Your task to perform on an android device: change notification settings in the gmail app Image 0: 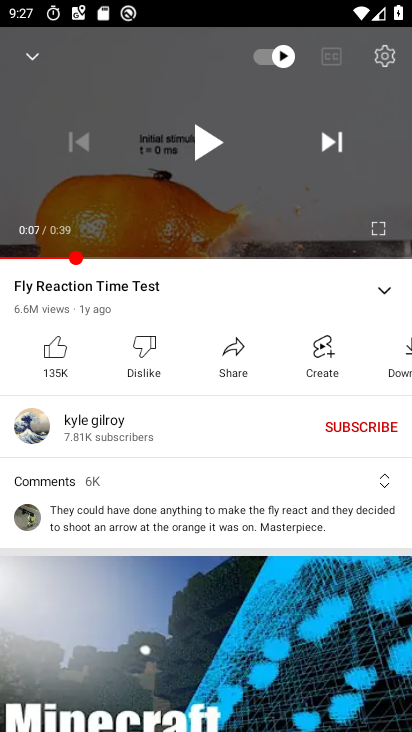
Step 0: press back button
Your task to perform on an android device: change notification settings in the gmail app Image 1: 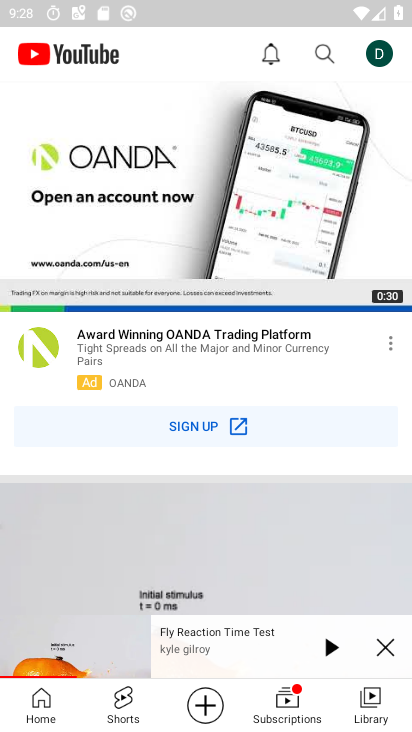
Step 1: press home button
Your task to perform on an android device: change notification settings in the gmail app Image 2: 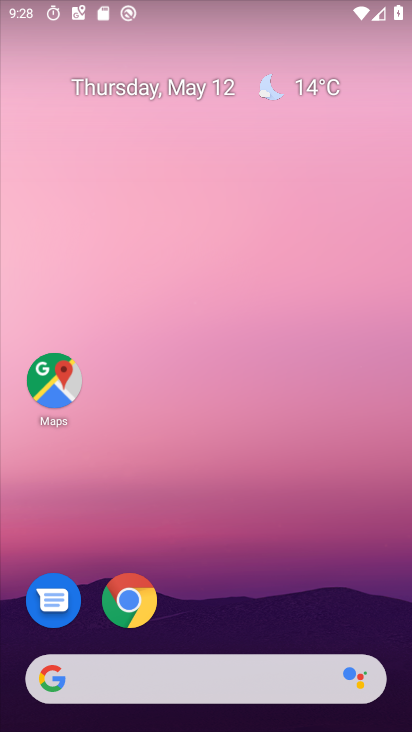
Step 2: drag from (366, 620) to (206, 59)
Your task to perform on an android device: change notification settings in the gmail app Image 3: 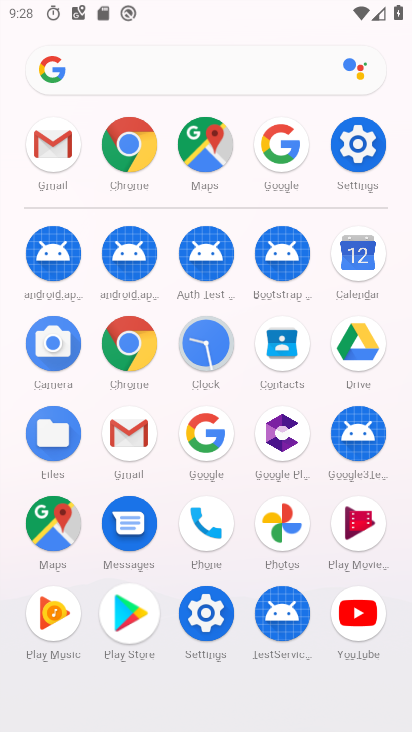
Step 3: drag from (264, 568) to (120, 96)
Your task to perform on an android device: change notification settings in the gmail app Image 4: 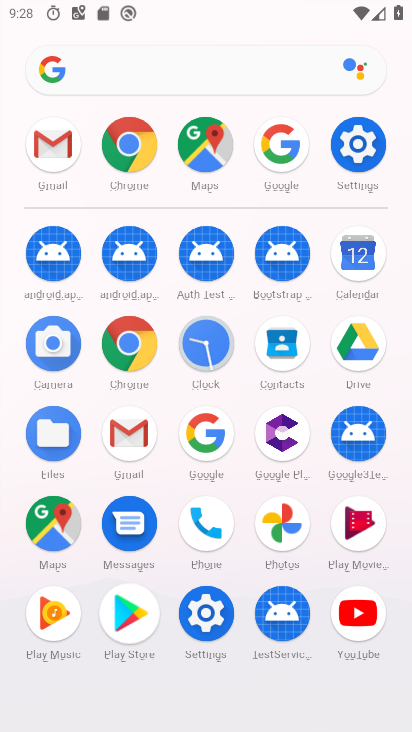
Step 4: click (134, 435)
Your task to perform on an android device: change notification settings in the gmail app Image 5: 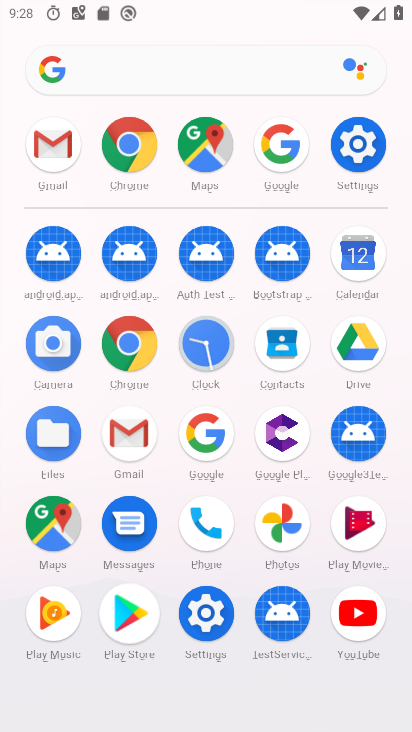
Step 5: click (134, 434)
Your task to perform on an android device: change notification settings in the gmail app Image 6: 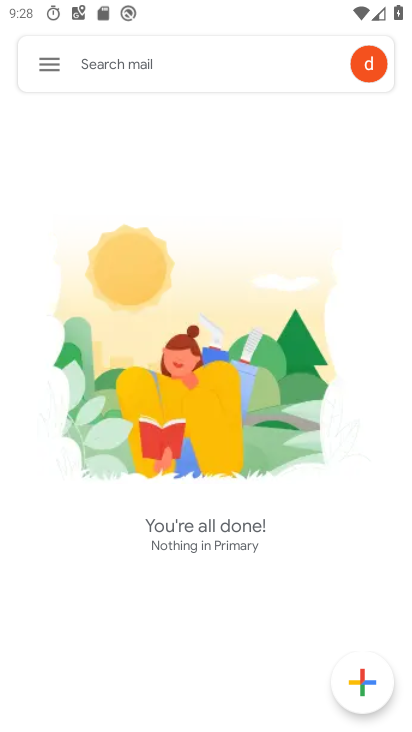
Step 6: click (55, 61)
Your task to perform on an android device: change notification settings in the gmail app Image 7: 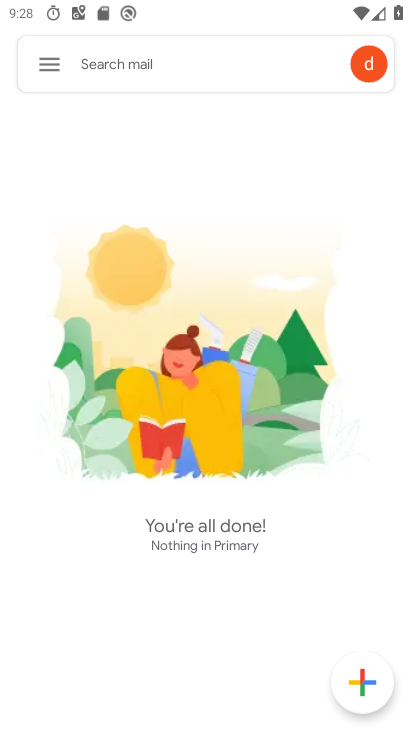
Step 7: click (8, 11)
Your task to perform on an android device: change notification settings in the gmail app Image 8: 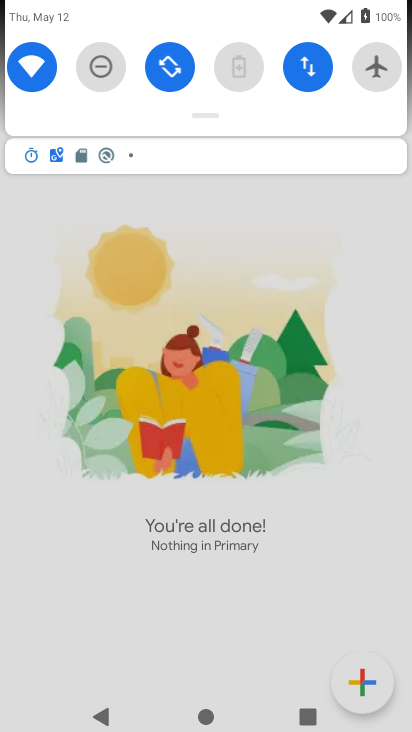
Step 8: click (54, 67)
Your task to perform on an android device: change notification settings in the gmail app Image 9: 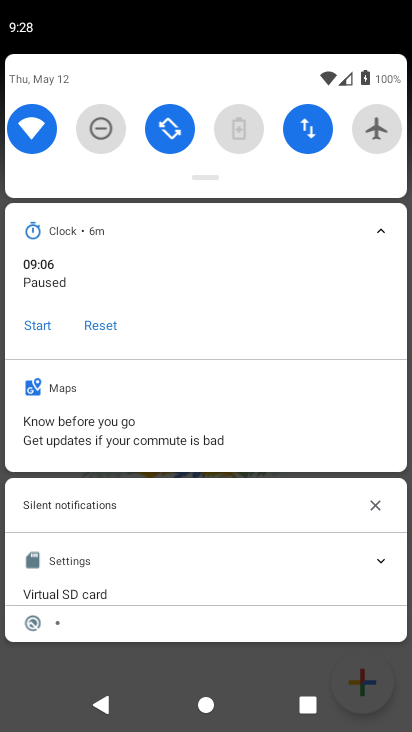
Step 9: click (59, 64)
Your task to perform on an android device: change notification settings in the gmail app Image 10: 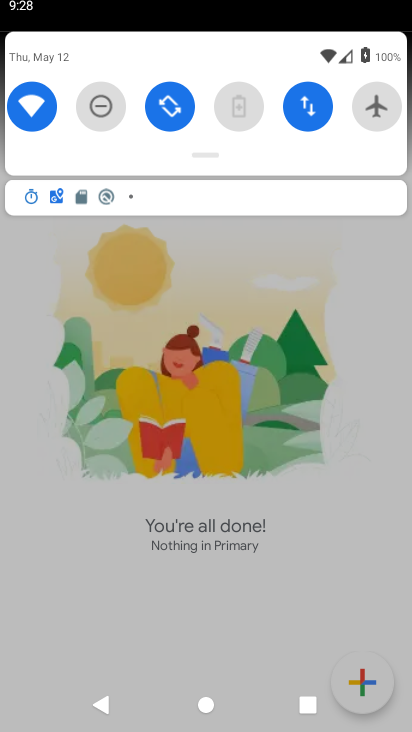
Step 10: click (60, 70)
Your task to perform on an android device: change notification settings in the gmail app Image 11: 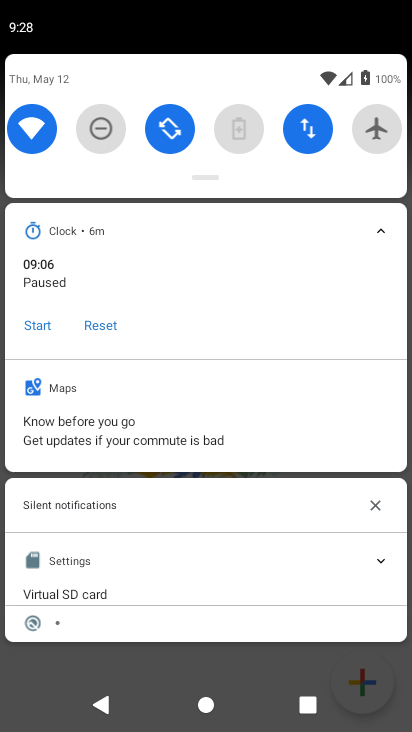
Step 11: click (370, 500)
Your task to perform on an android device: change notification settings in the gmail app Image 12: 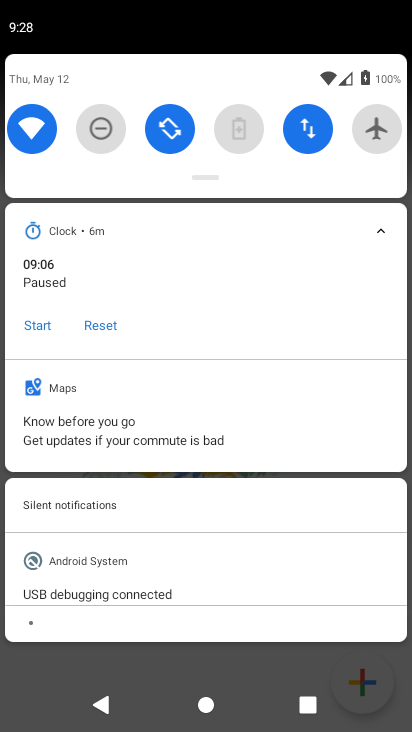
Step 12: click (312, 654)
Your task to perform on an android device: change notification settings in the gmail app Image 13: 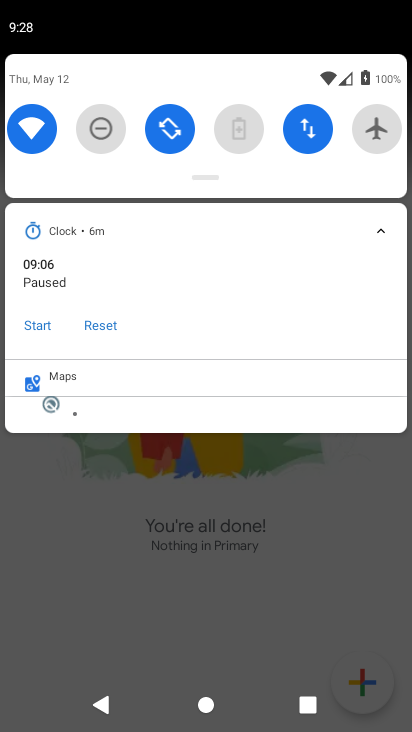
Step 13: click (225, 662)
Your task to perform on an android device: change notification settings in the gmail app Image 14: 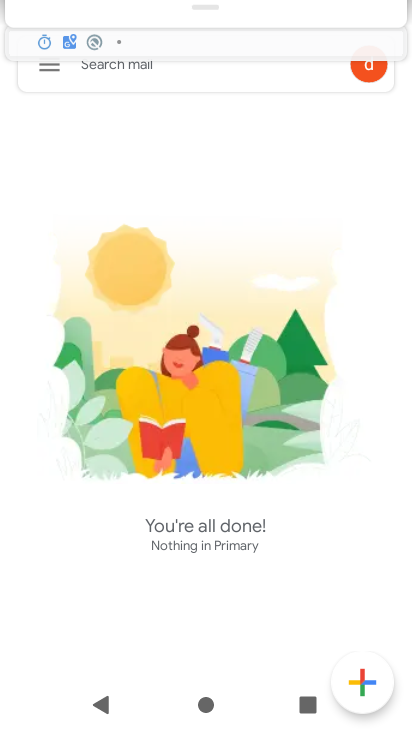
Step 14: drag from (228, 667) to (277, 667)
Your task to perform on an android device: change notification settings in the gmail app Image 15: 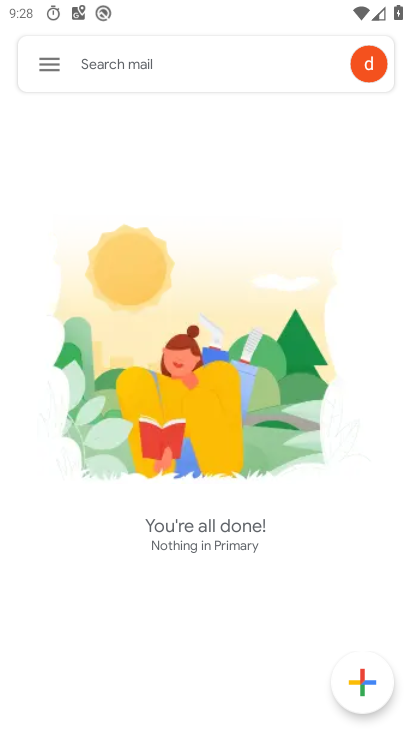
Step 15: click (48, 69)
Your task to perform on an android device: change notification settings in the gmail app Image 16: 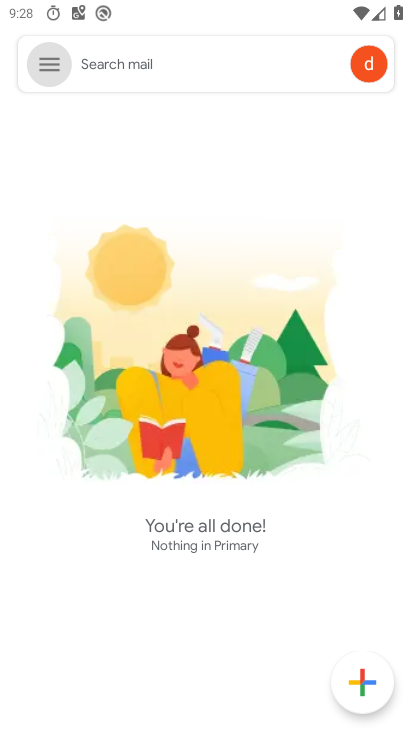
Step 16: click (49, 68)
Your task to perform on an android device: change notification settings in the gmail app Image 17: 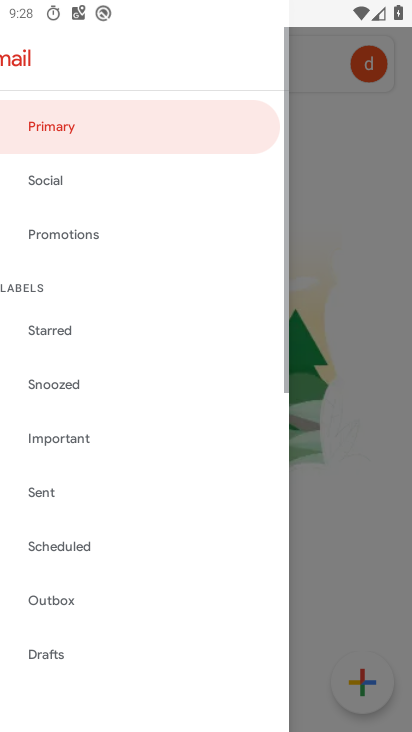
Step 17: click (49, 68)
Your task to perform on an android device: change notification settings in the gmail app Image 18: 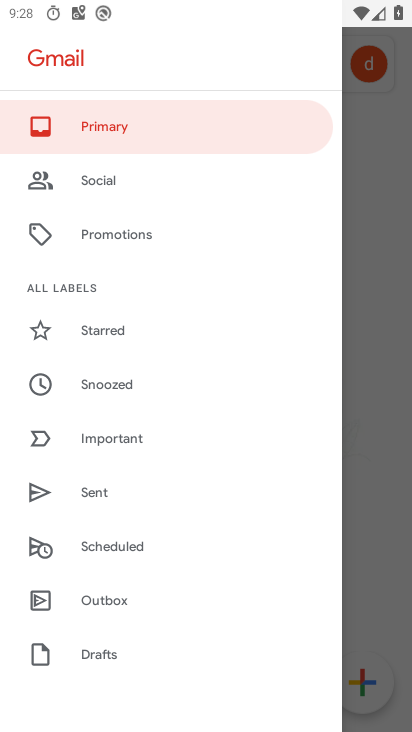
Step 18: drag from (208, 512) to (111, 19)
Your task to perform on an android device: change notification settings in the gmail app Image 19: 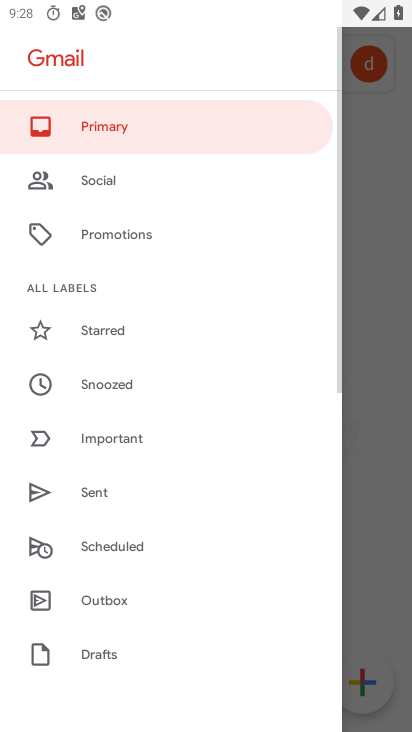
Step 19: drag from (155, 412) to (122, 14)
Your task to perform on an android device: change notification settings in the gmail app Image 20: 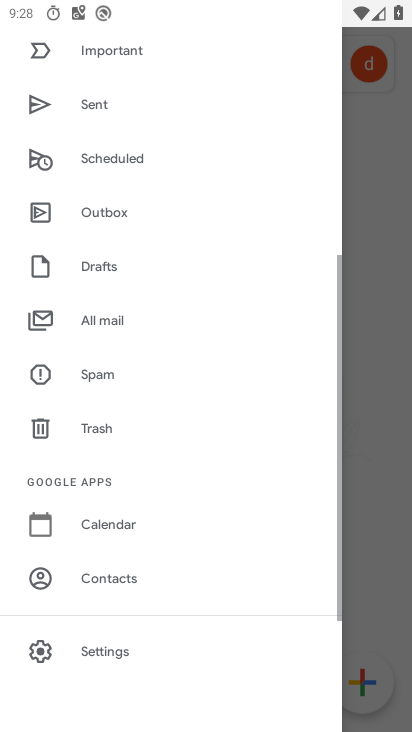
Step 20: drag from (152, 469) to (157, 28)
Your task to perform on an android device: change notification settings in the gmail app Image 21: 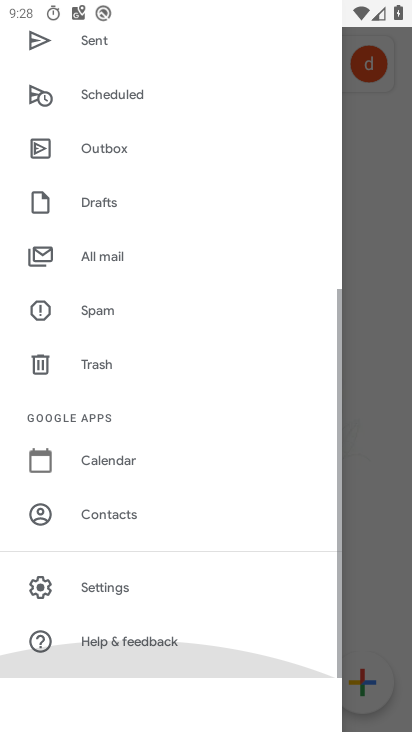
Step 21: drag from (231, 504) to (230, 76)
Your task to perform on an android device: change notification settings in the gmail app Image 22: 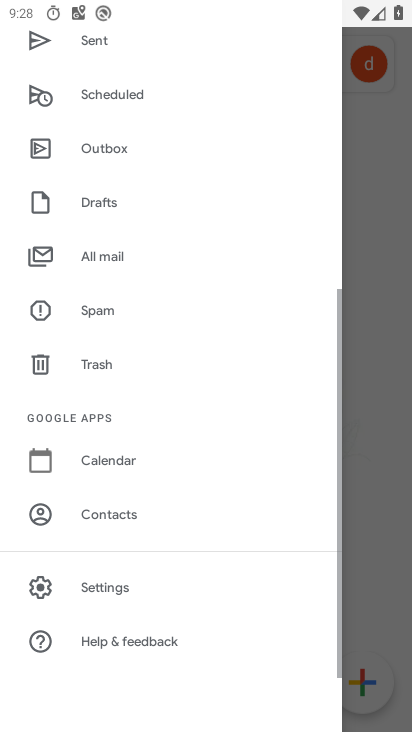
Step 22: click (106, 586)
Your task to perform on an android device: change notification settings in the gmail app Image 23: 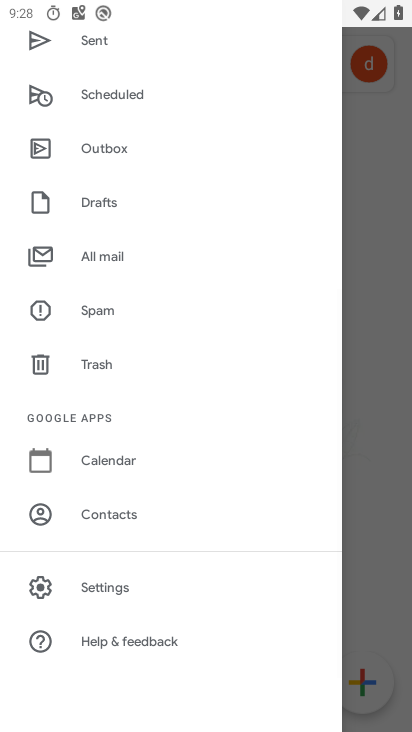
Step 23: click (106, 586)
Your task to perform on an android device: change notification settings in the gmail app Image 24: 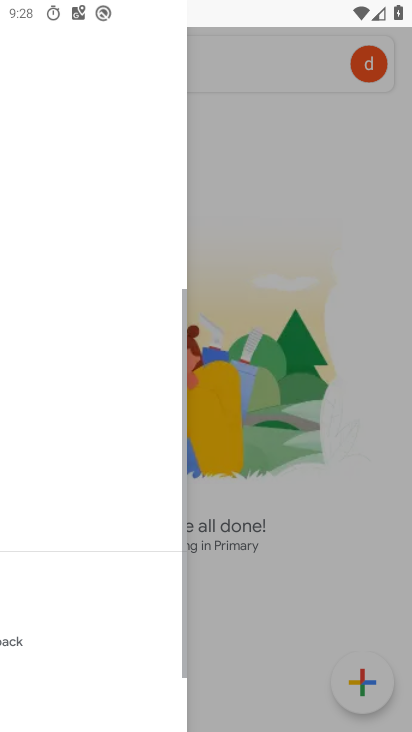
Step 24: click (105, 586)
Your task to perform on an android device: change notification settings in the gmail app Image 25: 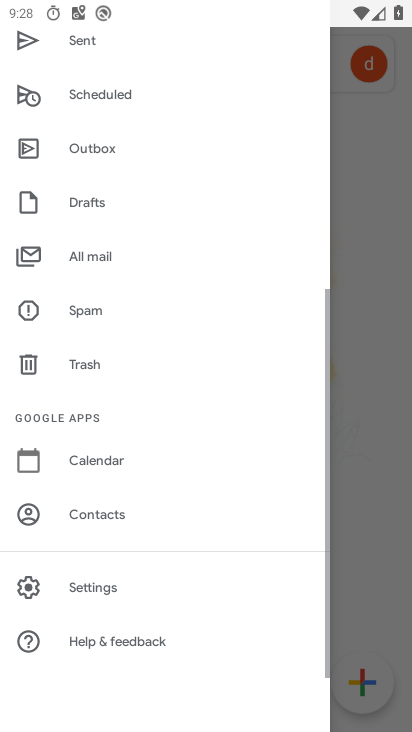
Step 25: click (101, 586)
Your task to perform on an android device: change notification settings in the gmail app Image 26: 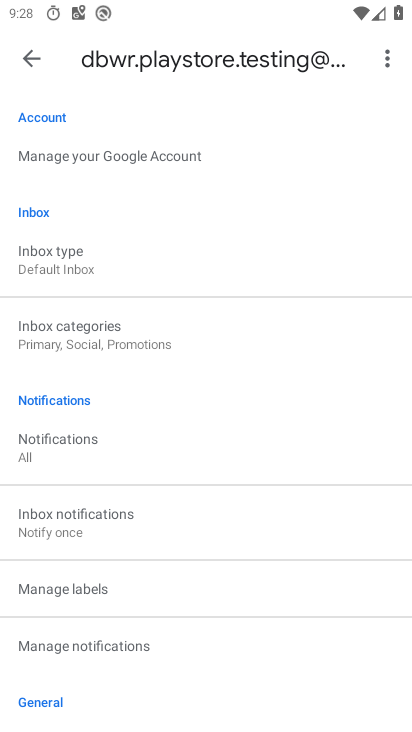
Step 26: click (39, 429)
Your task to perform on an android device: change notification settings in the gmail app Image 27: 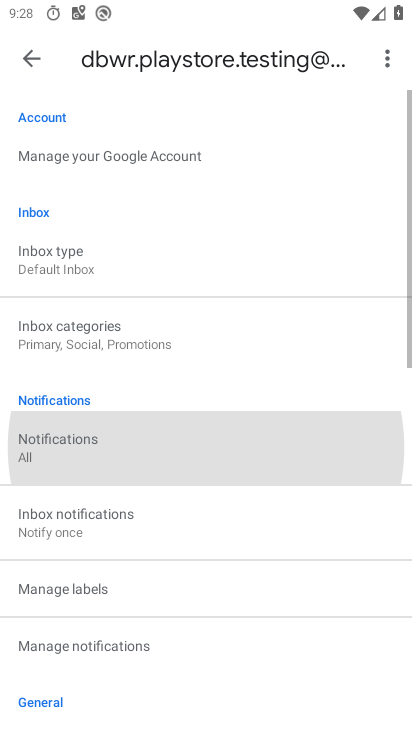
Step 27: click (40, 429)
Your task to perform on an android device: change notification settings in the gmail app Image 28: 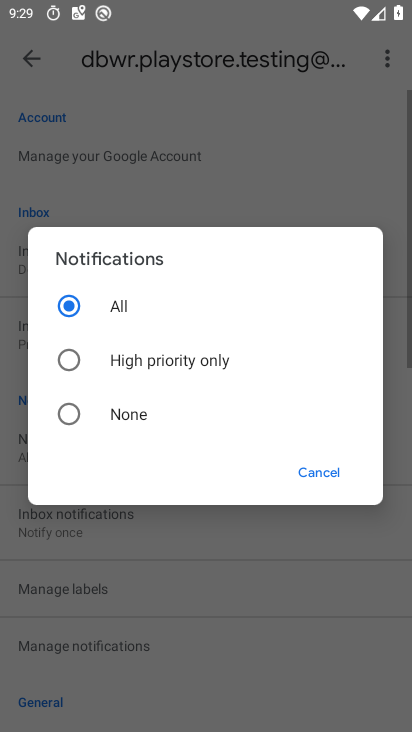
Step 28: click (50, 446)
Your task to perform on an android device: change notification settings in the gmail app Image 29: 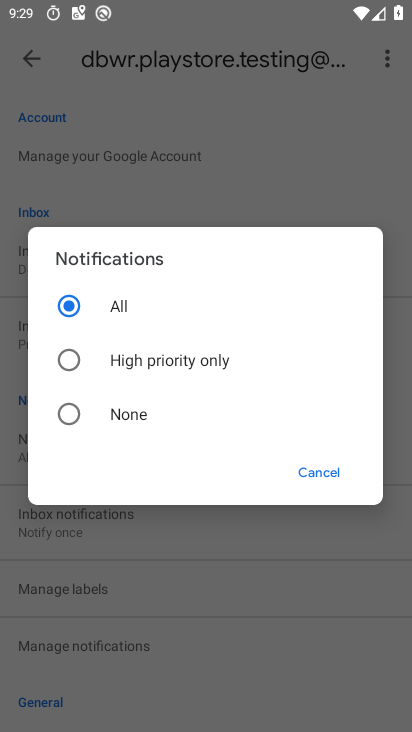
Step 29: click (70, 346)
Your task to perform on an android device: change notification settings in the gmail app Image 30: 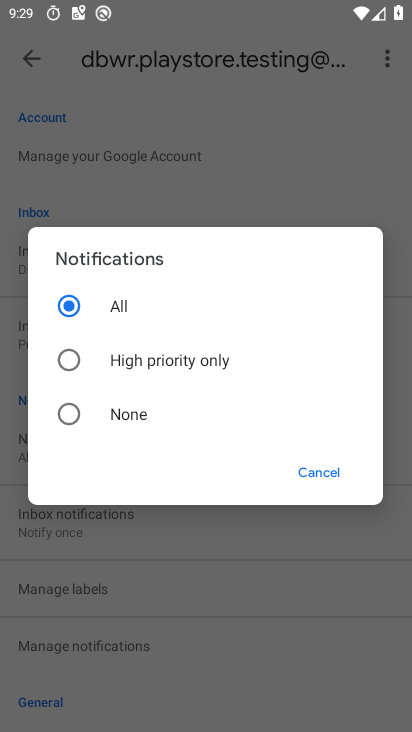
Step 30: click (62, 355)
Your task to perform on an android device: change notification settings in the gmail app Image 31: 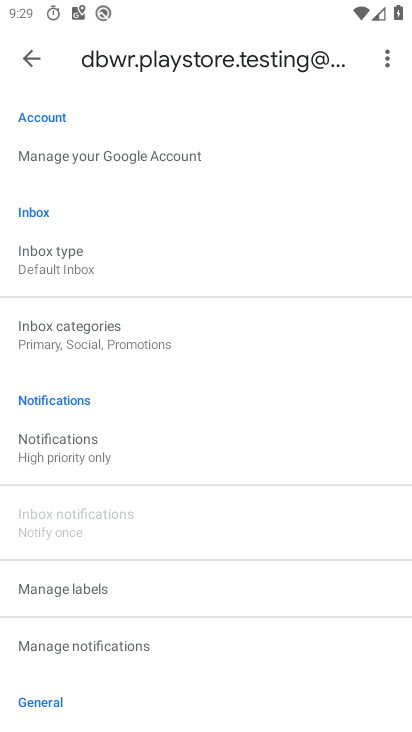
Step 31: task complete